Your task to perform on an android device: turn on the 12-hour format for clock Image 0: 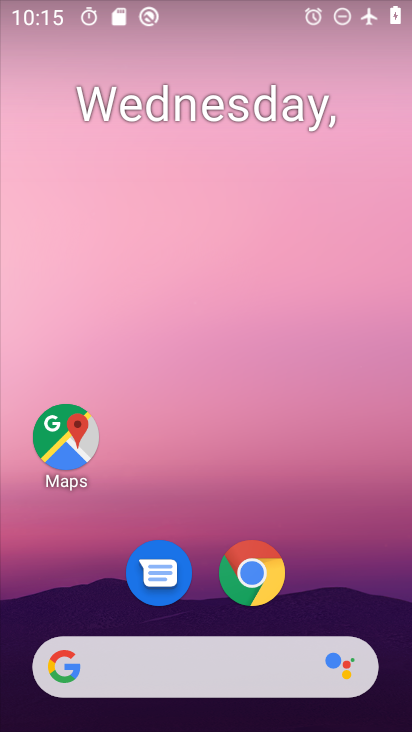
Step 0: drag from (304, 611) to (336, 236)
Your task to perform on an android device: turn on the 12-hour format for clock Image 1: 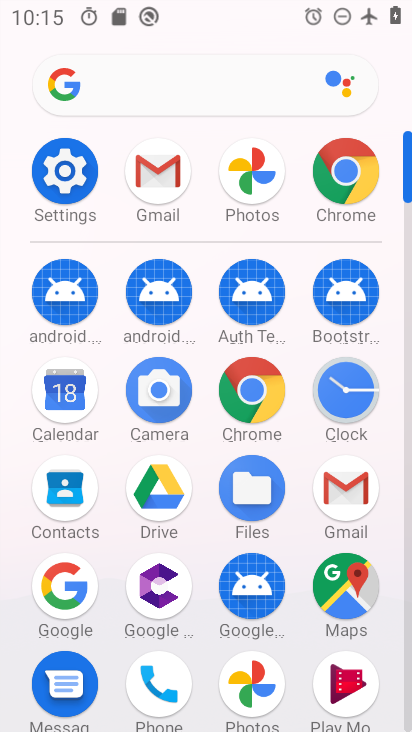
Step 1: click (350, 404)
Your task to perform on an android device: turn on the 12-hour format for clock Image 2: 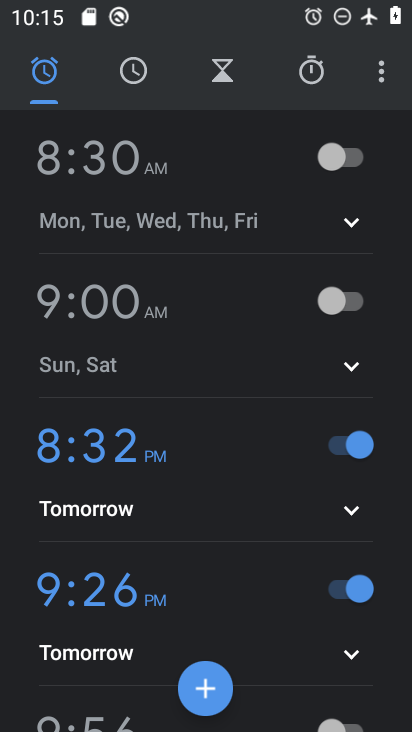
Step 2: click (380, 87)
Your task to perform on an android device: turn on the 12-hour format for clock Image 3: 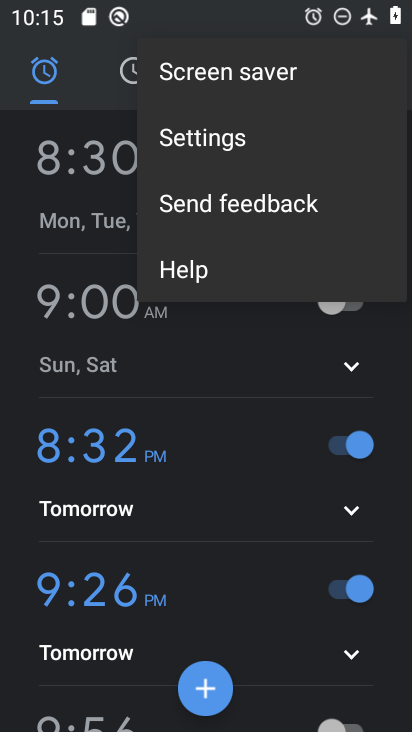
Step 3: click (246, 147)
Your task to perform on an android device: turn on the 12-hour format for clock Image 4: 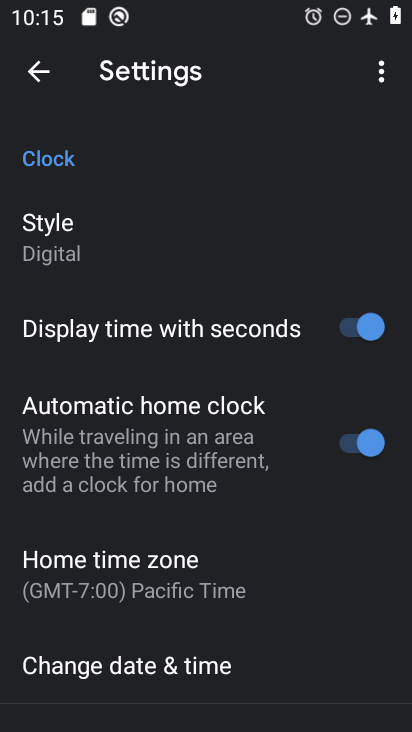
Step 4: drag from (224, 460) to (269, 177)
Your task to perform on an android device: turn on the 12-hour format for clock Image 5: 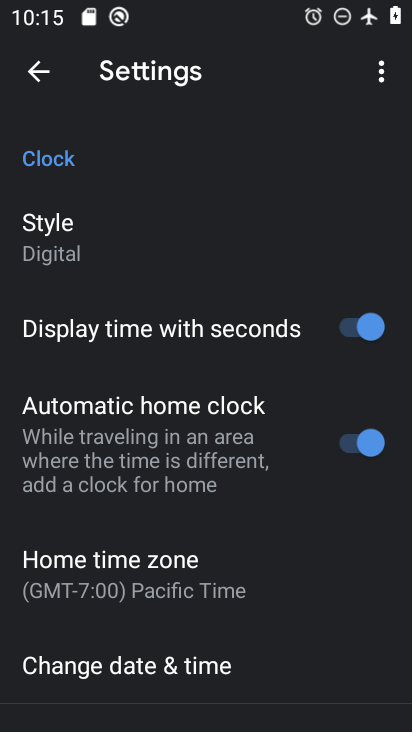
Step 5: drag from (208, 556) to (191, 236)
Your task to perform on an android device: turn on the 12-hour format for clock Image 6: 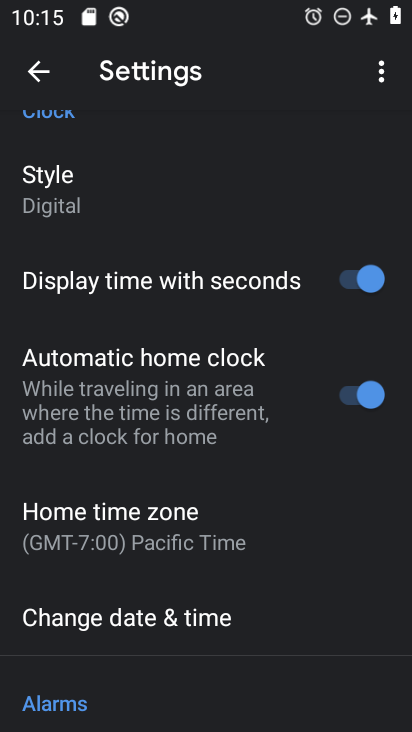
Step 6: click (177, 627)
Your task to perform on an android device: turn on the 12-hour format for clock Image 7: 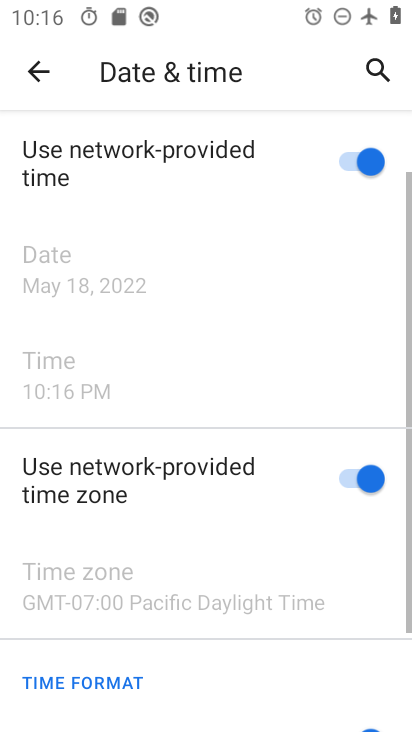
Step 7: task complete